Your task to perform on an android device: Show me productivity apps on the Play Store Image 0: 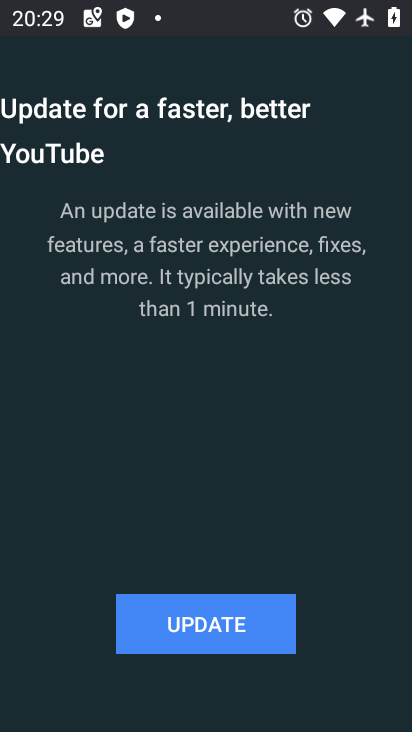
Step 0: press back button
Your task to perform on an android device: Show me productivity apps on the Play Store Image 1: 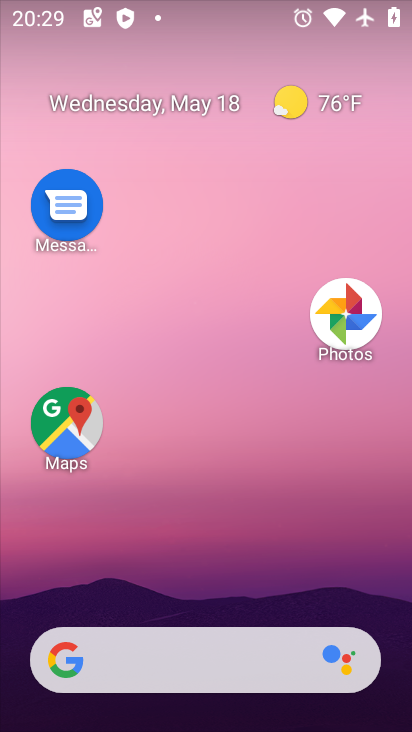
Step 1: drag from (271, 622) to (294, 3)
Your task to perform on an android device: Show me productivity apps on the Play Store Image 2: 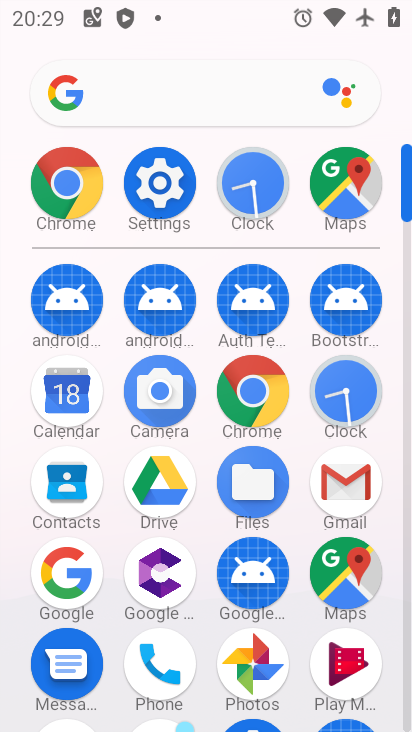
Step 2: drag from (199, 642) to (171, 244)
Your task to perform on an android device: Show me productivity apps on the Play Store Image 3: 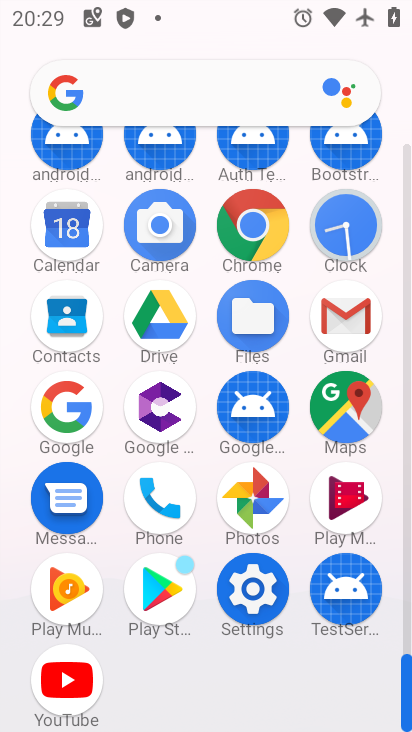
Step 3: click (166, 600)
Your task to perform on an android device: Show me productivity apps on the Play Store Image 4: 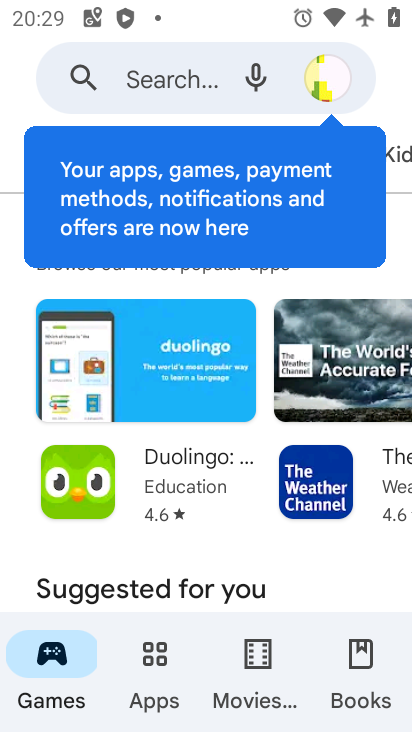
Step 4: click (143, 660)
Your task to perform on an android device: Show me productivity apps on the Play Store Image 5: 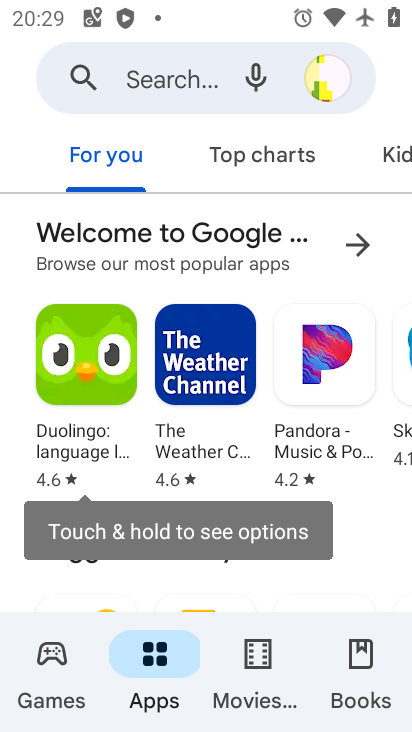
Step 5: drag from (332, 175) to (24, 175)
Your task to perform on an android device: Show me productivity apps on the Play Store Image 6: 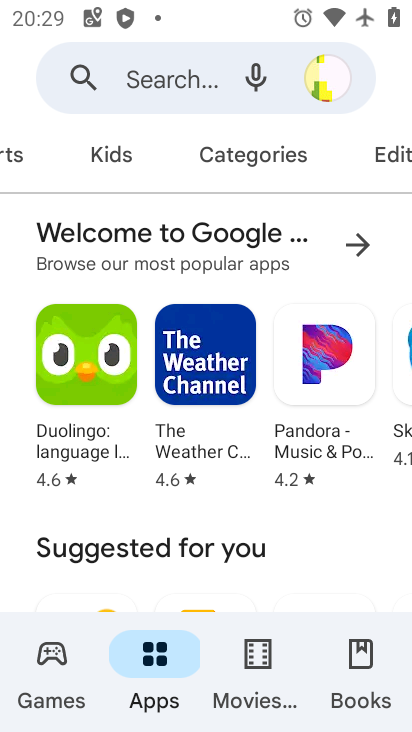
Step 6: click (225, 142)
Your task to perform on an android device: Show me productivity apps on the Play Store Image 7: 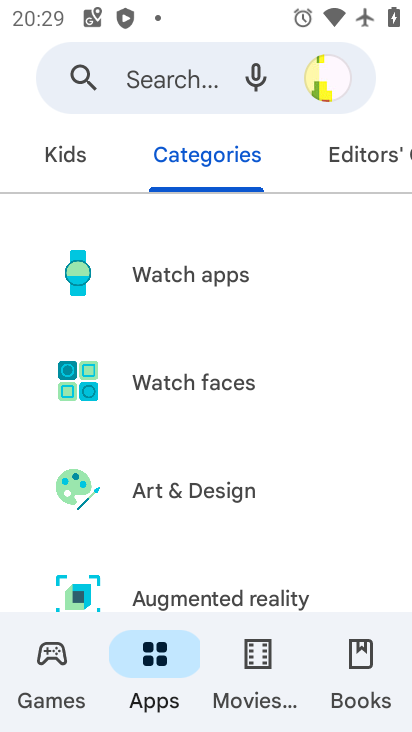
Step 7: drag from (242, 547) to (192, 119)
Your task to perform on an android device: Show me productivity apps on the Play Store Image 8: 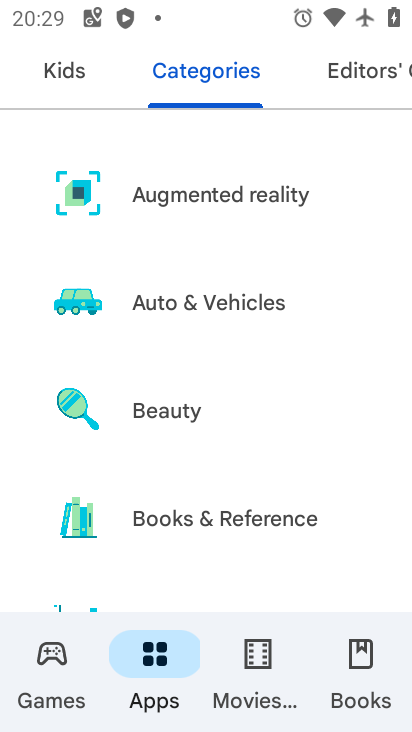
Step 8: drag from (202, 591) to (148, 85)
Your task to perform on an android device: Show me productivity apps on the Play Store Image 9: 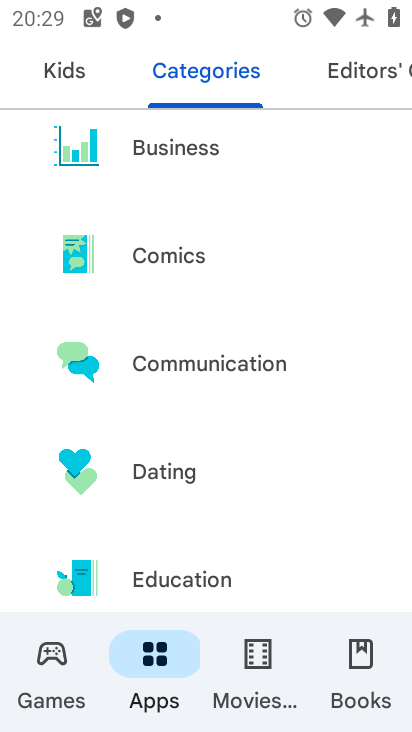
Step 9: drag from (151, 553) to (139, 139)
Your task to perform on an android device: Show me productivity apps on the Play Store Image 10: 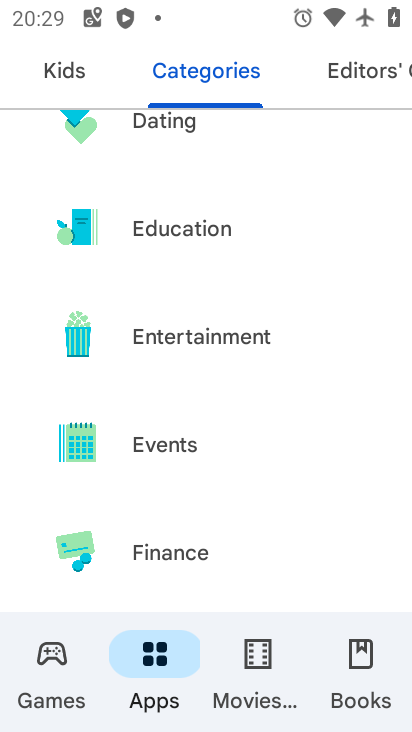
Step 10: drag from (187, 594) to (126, 177)
Your task to perform on an android device: Show me productivity apps on the Play Store Image 11: 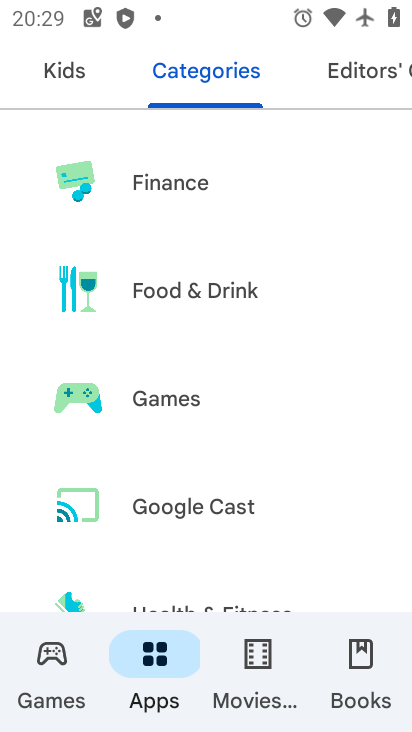
Step 11: drag from (180, 520) to (157, 162)
Your task to perform on an android device: Show me productivity apps on the Play Store Image 12: 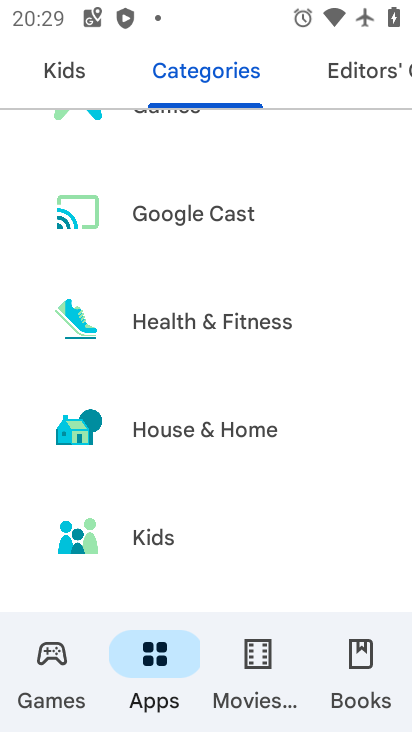
Step 12: drag from (157, 557) to (105, 186)
Your task to perform on an android device: Show me productivity apps on the Play Store Image 13: 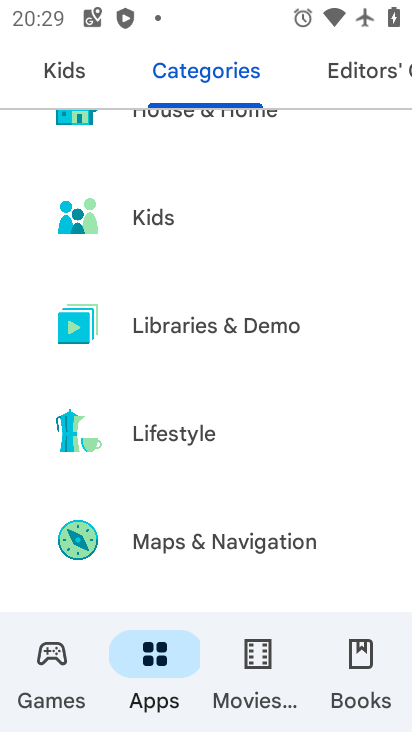
Step 13: drag from (132, 519) to (72, 118)
Your task to perform on an android device: Show me productivity apps on the Play Store Image 14: 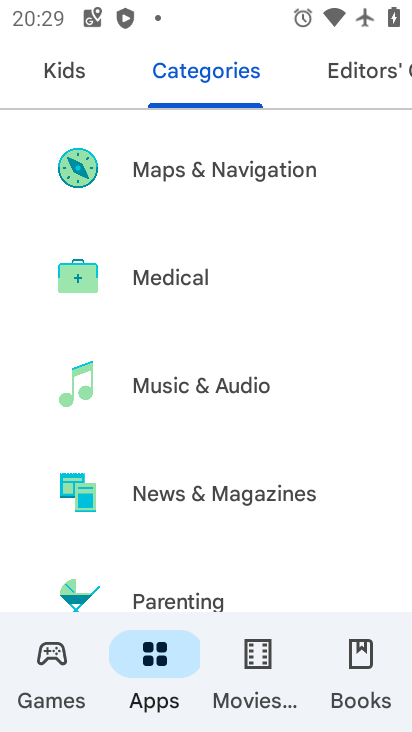
Step 14: drag from (102, 568) to (100, 339)
Your task to perform on an android device: Show me productivity apps on the Play Store Image 15: 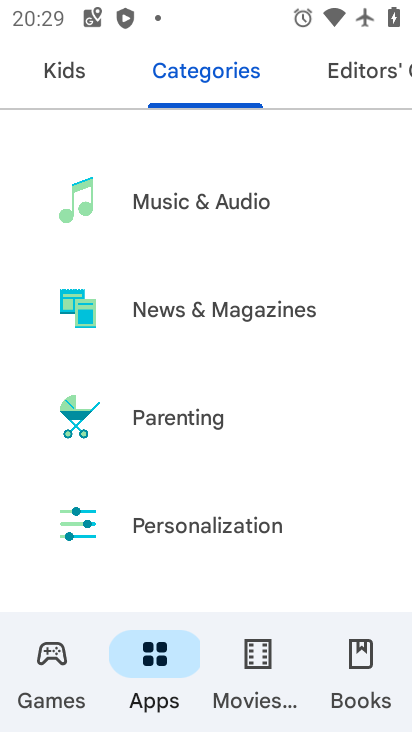
Step 15: drag from (172, 559) to (170, 258)
Your task to perform on an android device: Show me productivity apps on the Play Store Image 16: 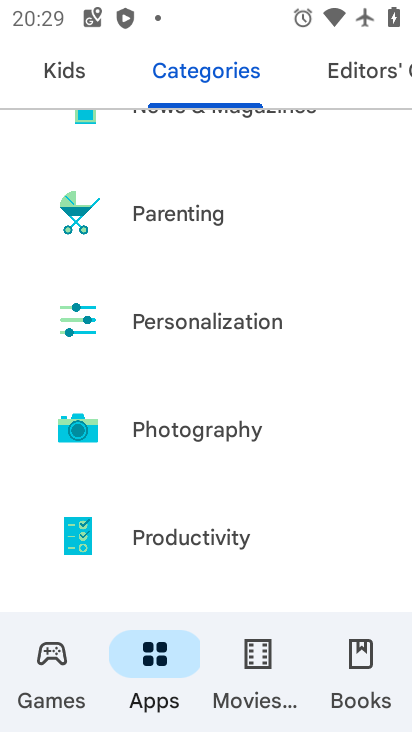
Step 16: click (215, 552)
Your task to perform on an android device: Show me productivity apps on the Play Store Image 17: 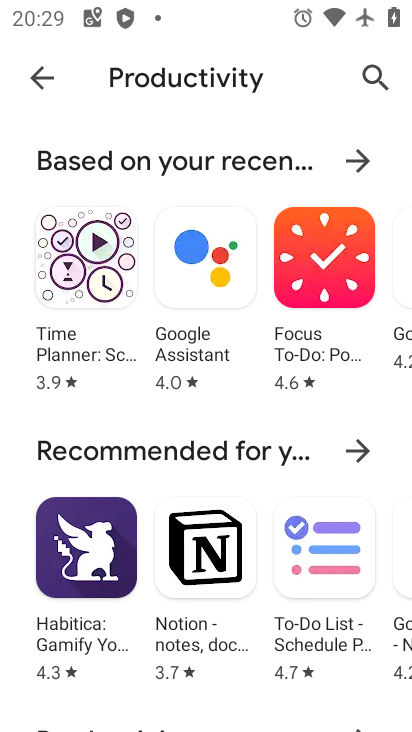
Step 17: task complete